Your task to perform on an android device: Open Chrome and go to settings Image 0: 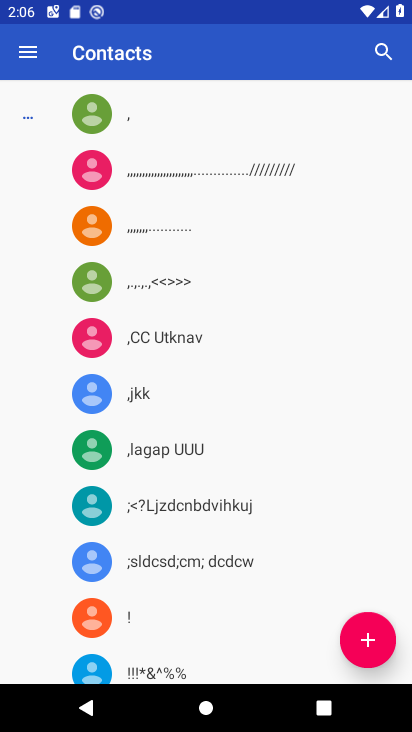
Step 0: press home button
Your task to perform on an android device: Open Chrome and go to settings Image 1: 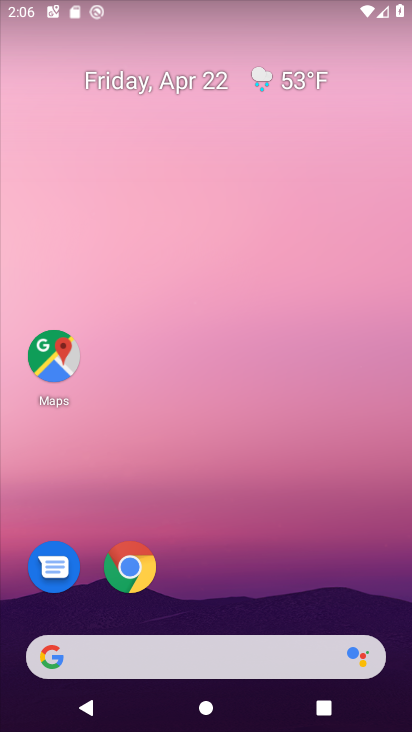
Step 1: click (136, 562)
Your task to perform on an android device: Open Chrome and go to settings Image 2: 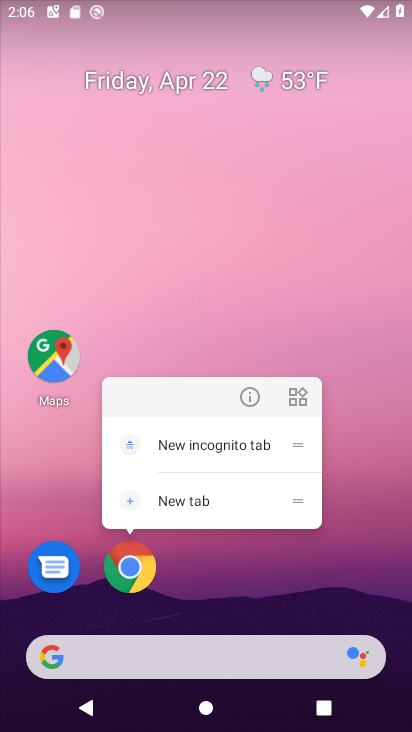
Step 2: click (136, 562)
Your task to perform on an android device: Open Chrome and go to settings Image 3: 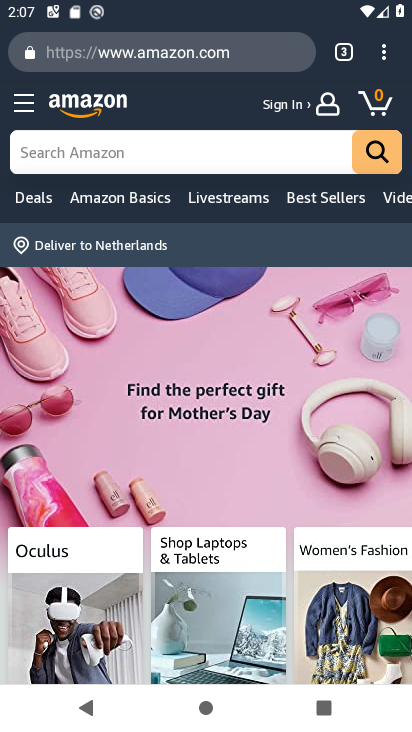
Step 3: task complete